Your task to perform on an android device: Open Google Chrome and click the shortcut for Amazon.com Image 0: 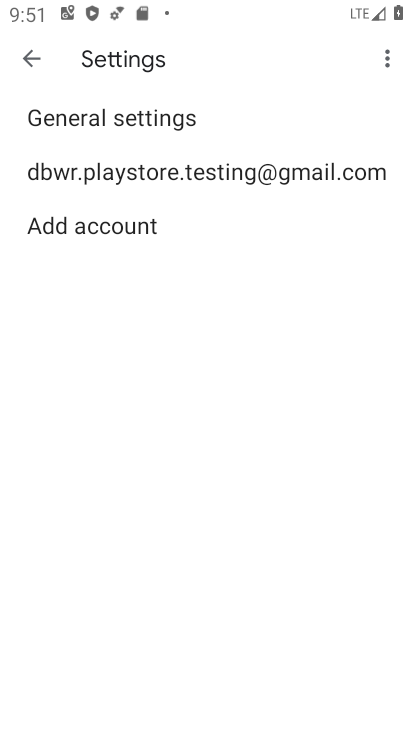
Step 0: press home button
Your task to perform on an android device: Open Google Chrome and click the shortcut for Amazon.com Image 1: 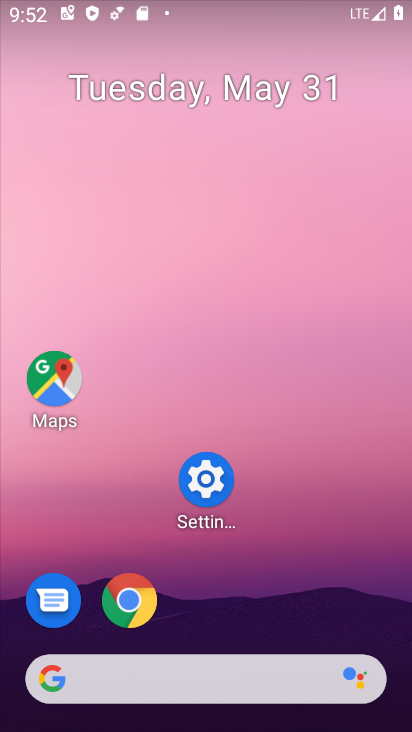
Step 1: click (112, 607)
Your task to perform on an android device: Open Google Chrome and click the shortcut for Amazon.com Image 2: 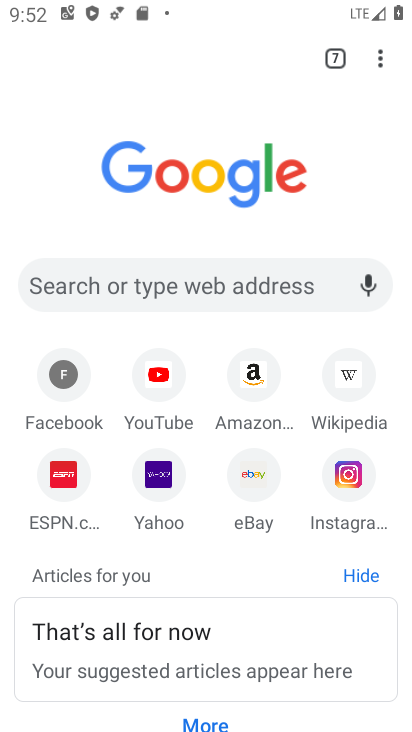
Step 2: click (261, 368)
Your task to perform on an android device: Open Google Chrome and click the shortcut for Amazon.com Image 3: 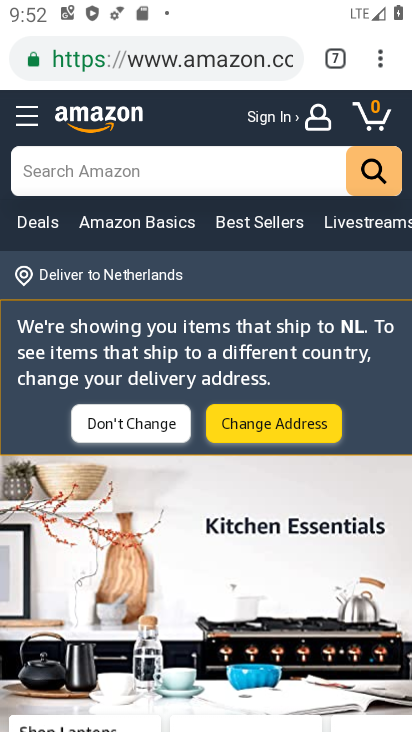
Step 3: click (367, 60)
Your task to perform on an android device: Open Google Chrome and click the shortcut for Amazon.com Image 4: 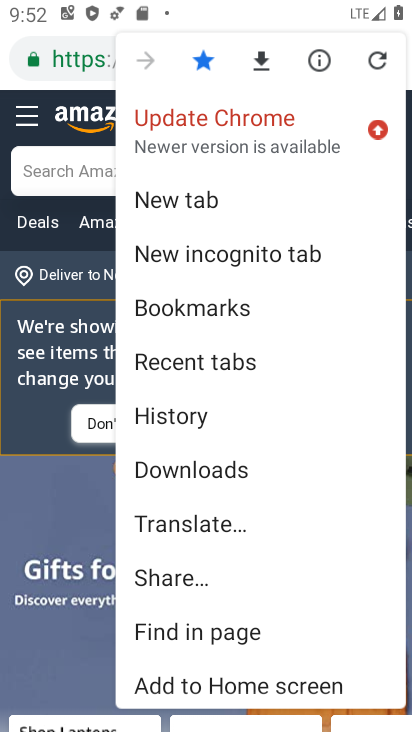
Step 4: click (199, 674)
Your task to perform on an android device: Open Google Chrome and click the shortcut for Amazon.com Image 5: 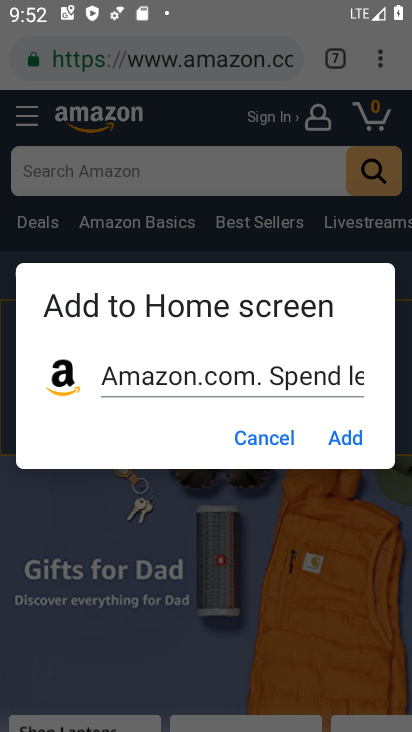
Step 5: click (346, 446)
Your task to perform on an android device: Open Google Chrome and click the shortcut for Amazon.com Image 6: 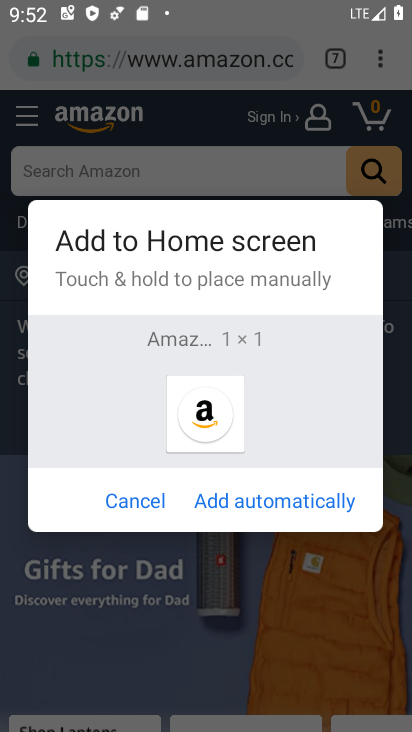
Step 6: click (317, 510)
Your task to perform on an android device: Open Google Chrome and click the shortcut for Amazon.com Image 7: 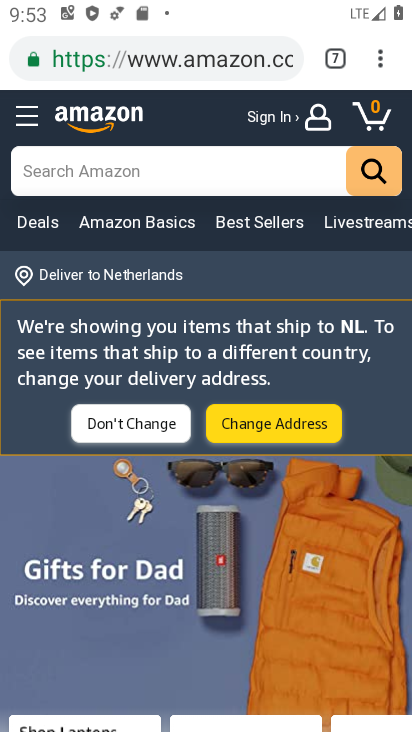
Step 7: task complete